Your task to perform on an android device: stop showing notifications on the lock screen Image 0: 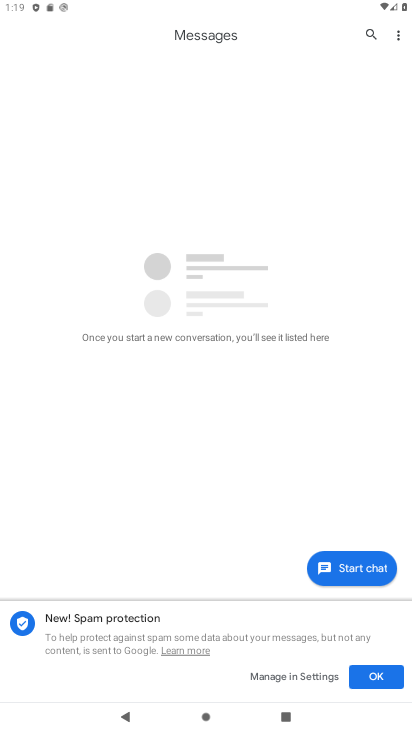
Step 0: drag from (200, 638) to (240, 363)
Your task to perform on an android device: stop showing notifications on the lock screen Image 1: 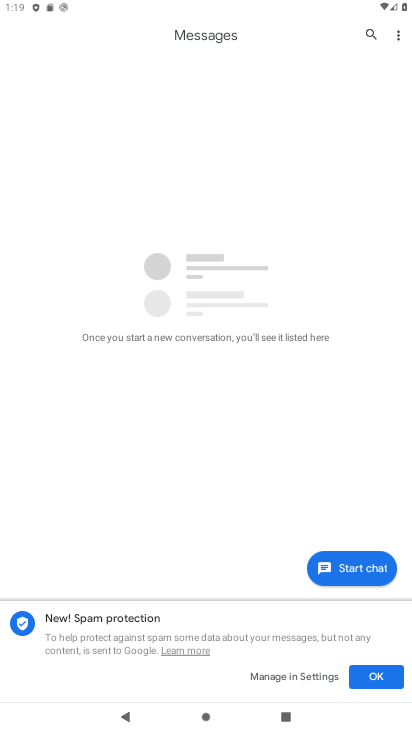
Step 1: press home button
Your task to perform on an android device: stop showing notifications on the lock screen Image 2: 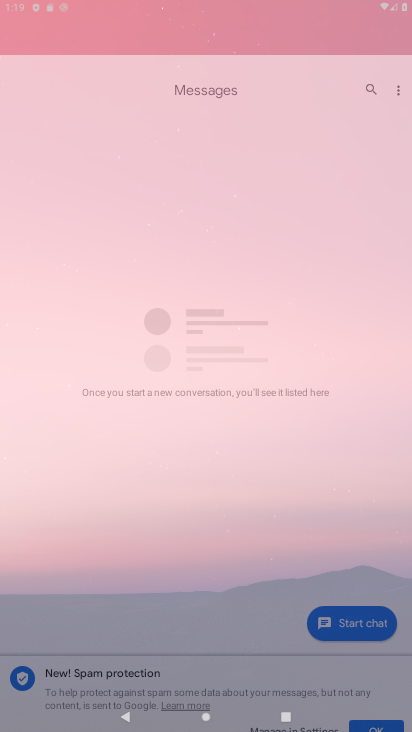
Step 2: drag from (183, 654) to (241, 234)
Your task to perform on an android device: stop showing notifications on the lock screen Image 3: 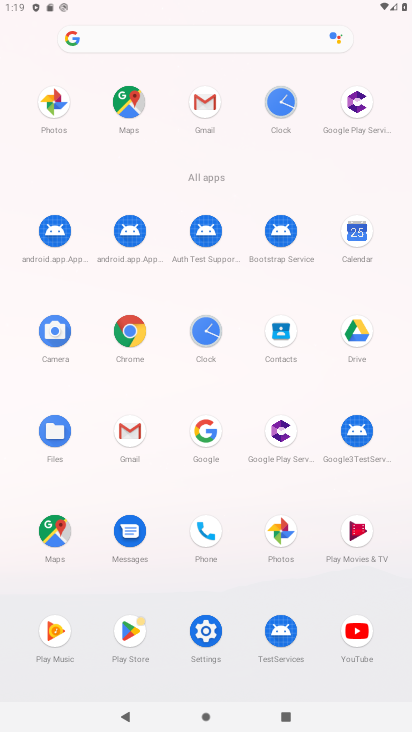
Step 3: click (207, 629)
Your task to perform on an android device: stop showing notifications on the lock screen Image 4: 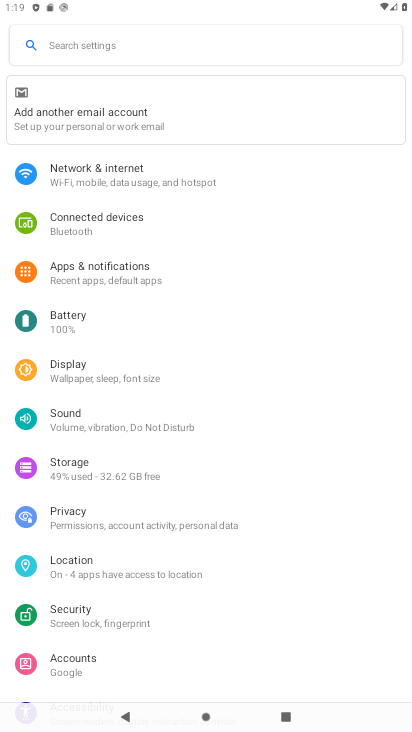
Step 4: click (139, 268)
Your task to perform on an android device: stop showing notifications on the lock screen Image 5: 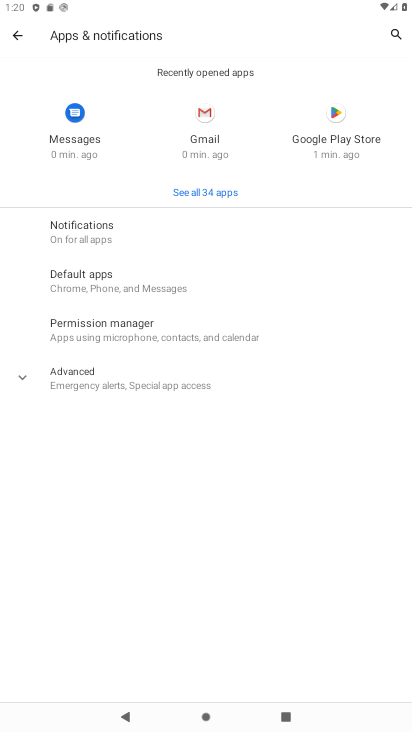
Step 5: click (107, 229)
Your task to perform on an android device: stop showing notifications on the lock screen Image 6: 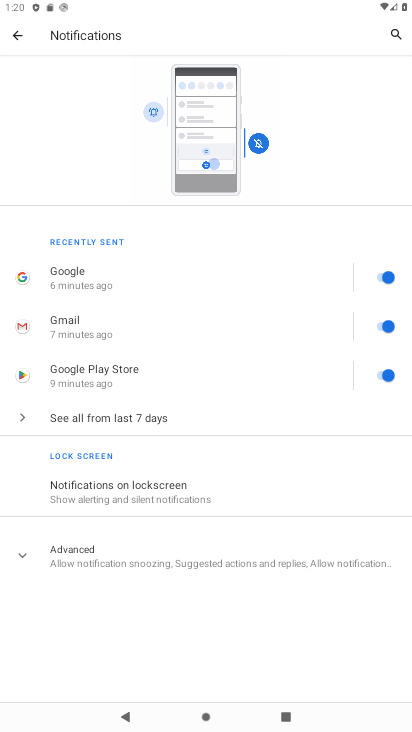
Step 6: click (151, 490)
Your task to perform on an android device: stop showing notifications on the lock screen Image 7: 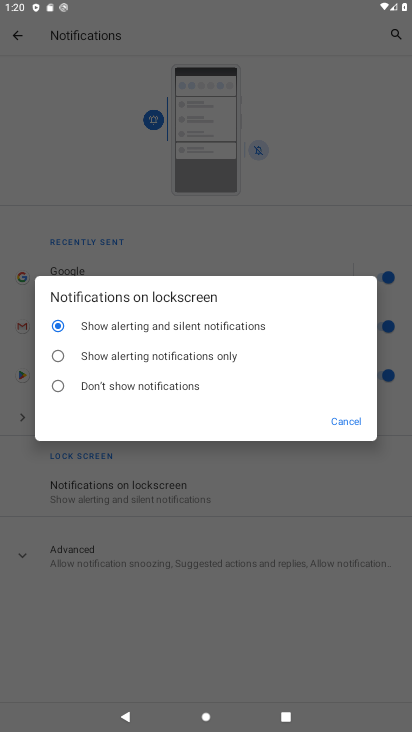
Step 7: click (86, 376)
Your task to perform on an android device: stop showing notifications on the lock screen Image 8: 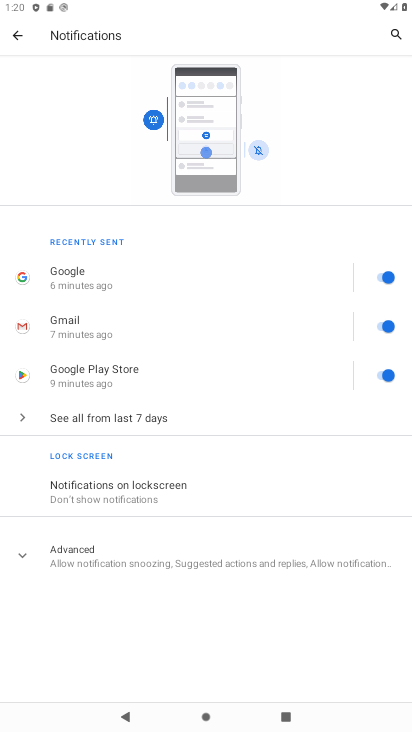
Step 8: task complete